Your task to perform on an android device: Search for bose soundsport free on newegg, select the first entry, add it to the cart, then select checkout. Image 0: 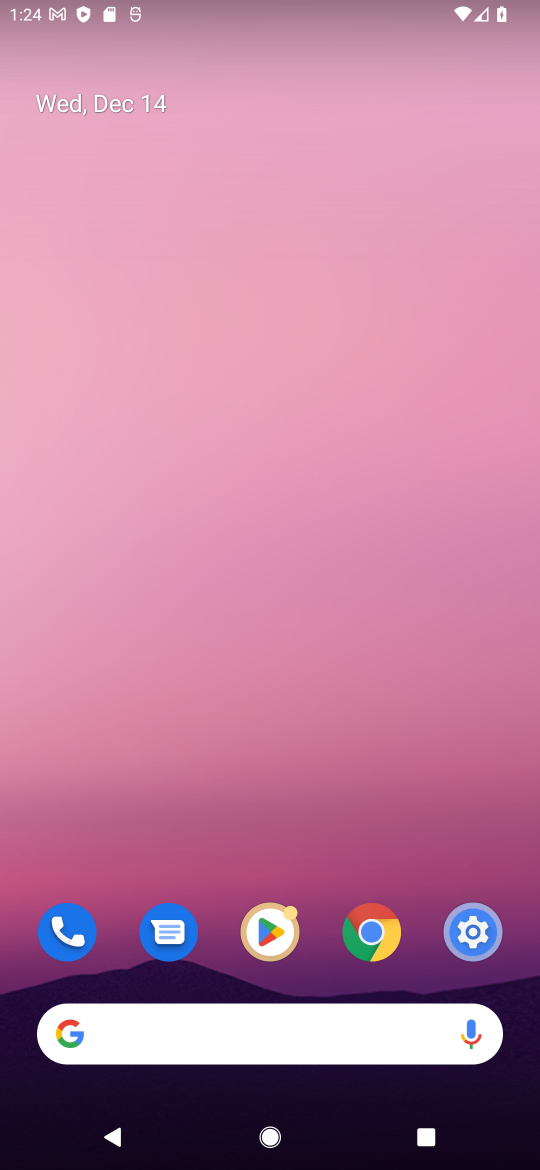
Step 0: click (259, 1036)
Your task to perform on an android device: Search for bose soundsport free on newegg, select the first entry, add it to the cart, then select checkout. Image 1: 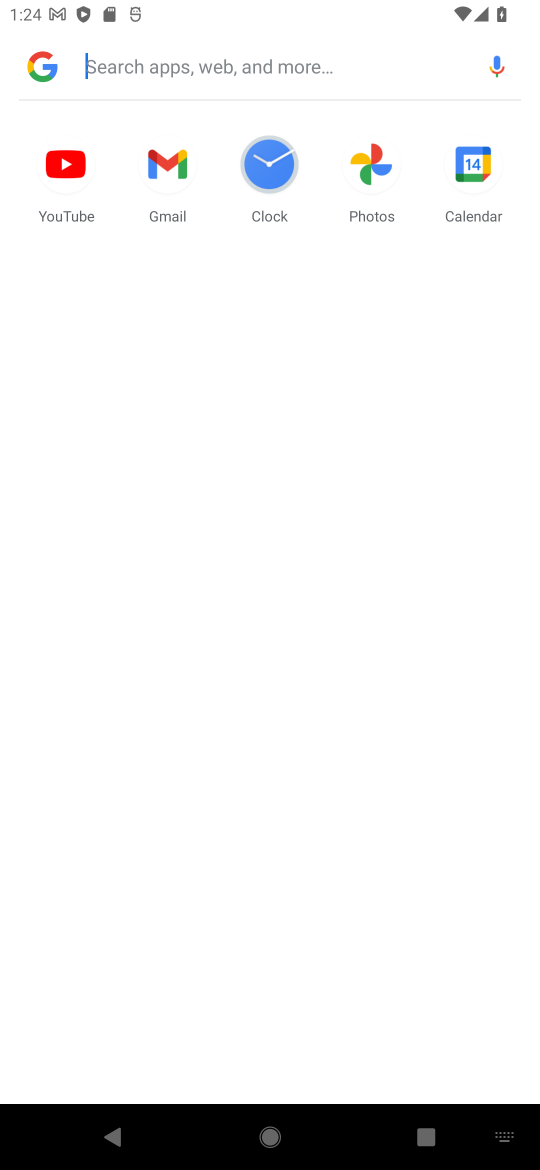
Step 1: type "newegg"
Your task to perform on an android device: Search for bose soundsport free on newegg, select the first entry, add it to the cart, then select checkout. Image 2: 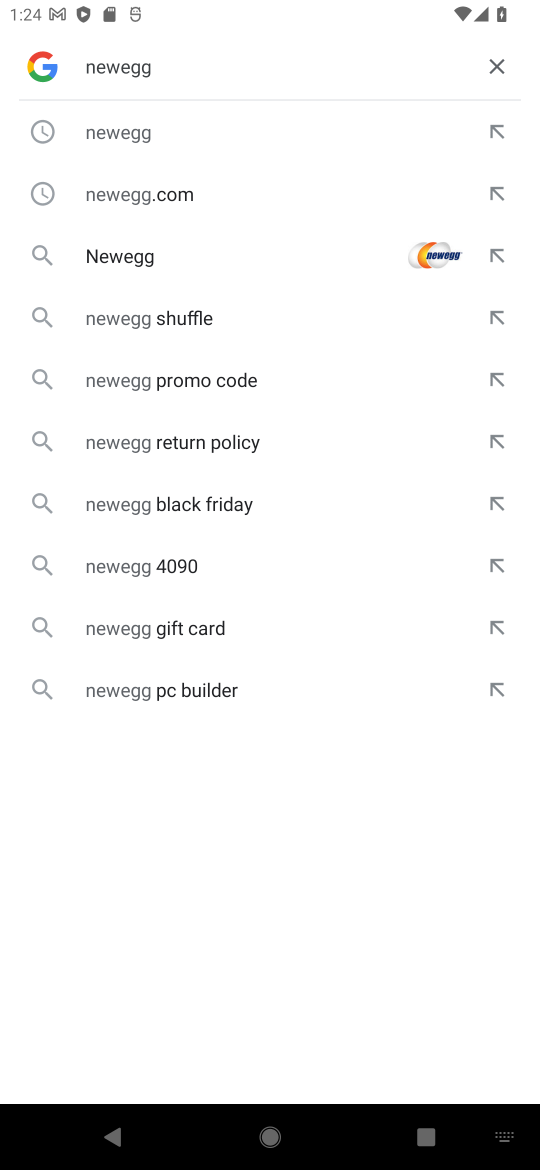
Step 2: click (181, 255)
Your task to perform on an android device: Search for bose soundsport free on newegg, select the first entry, add it to the cart, then select checkout. Image 3: 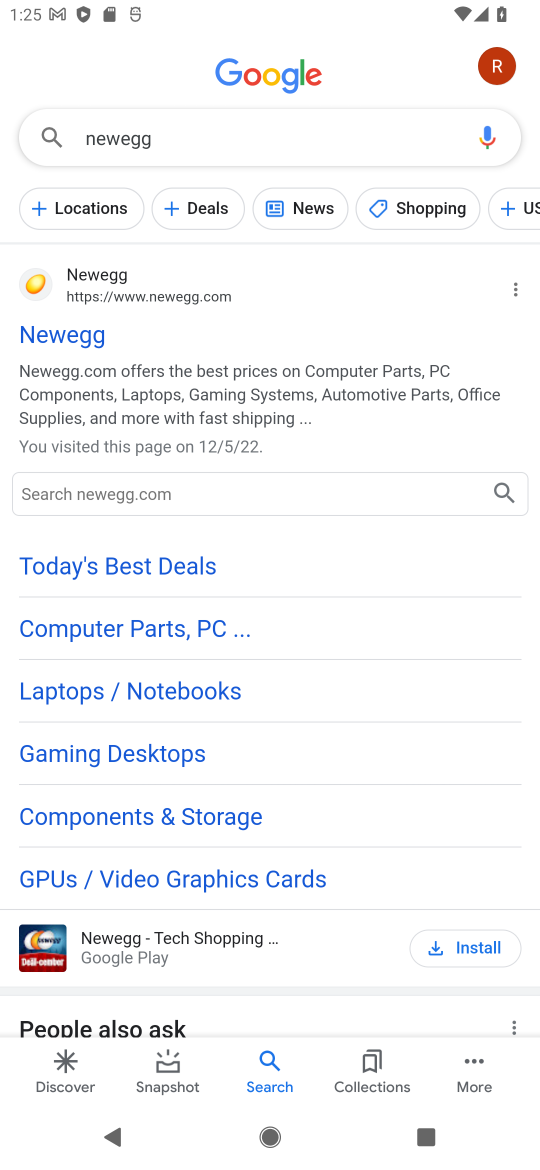
Step 3: click (47, 337)
Your task to perform on an android device: Search for bose soundsport free on newegg, select the first entry, add it to the cart, then select checkout. Image 4: 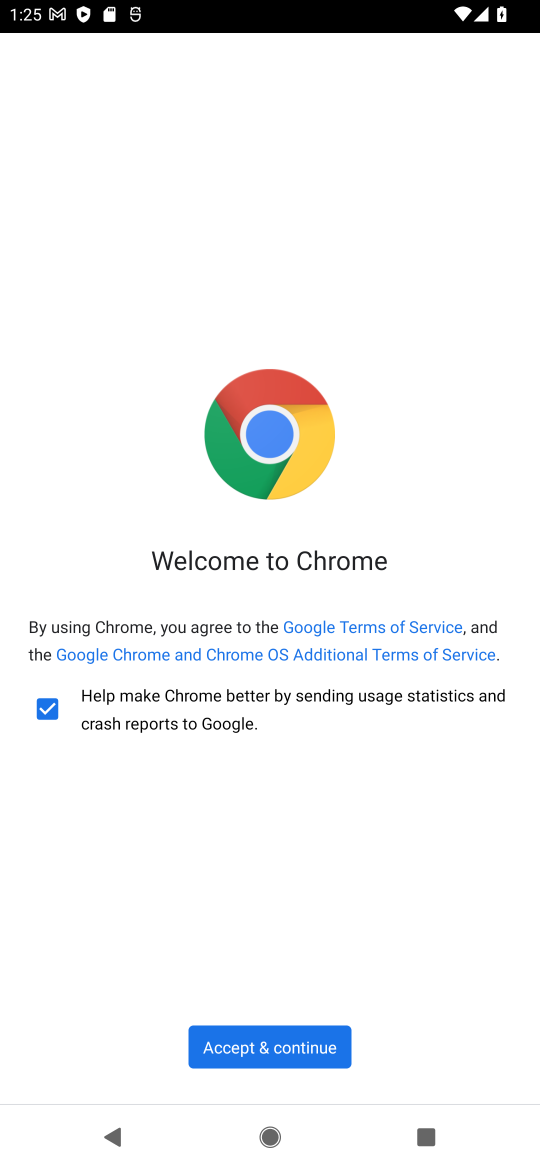
Step 4: click (251, 1040)
Your task to perform on an android device: Search for bose soundsport free on newegg, select the first entry, add it to the cart, then select checkout. Image 5: 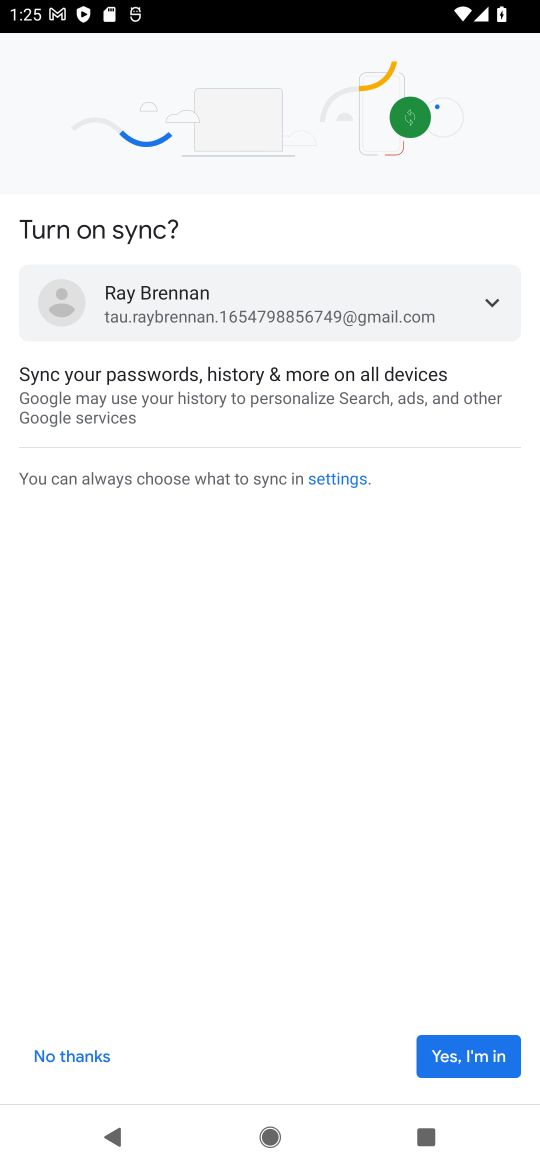
Step 5: click (460, 1057)
Your task to perform on an android device: Search for bose soundsport free on newegg, select the first entry, add it to the cart, then select checkout. Image 6: 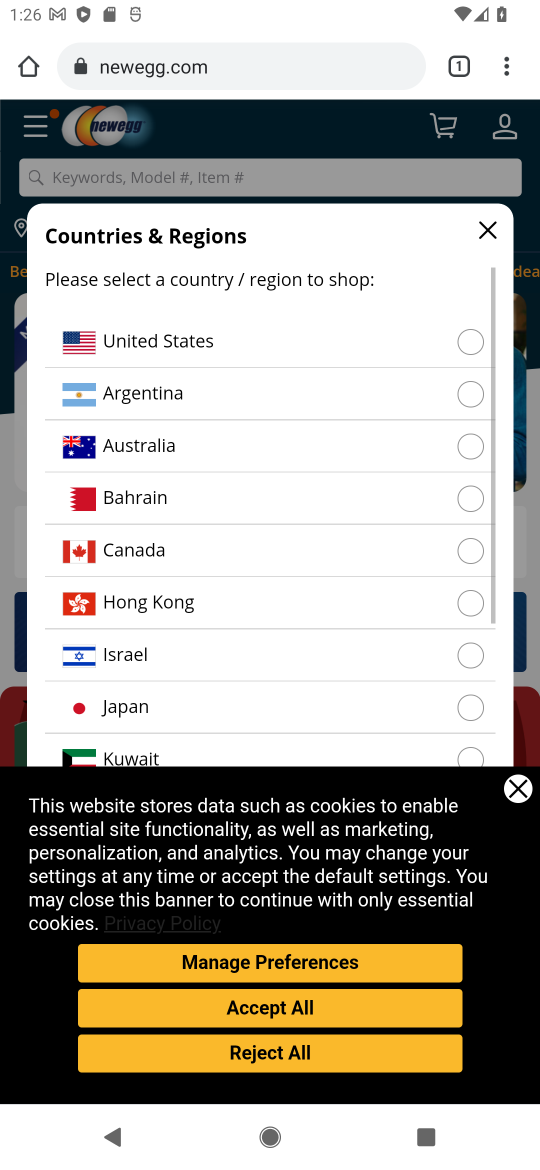
Step 6: click (469, 326)
Your task to perform on an android device: Search for bose soundsport free on newegg, select the first entry, add it to the cart, then select checkout. Image 7: 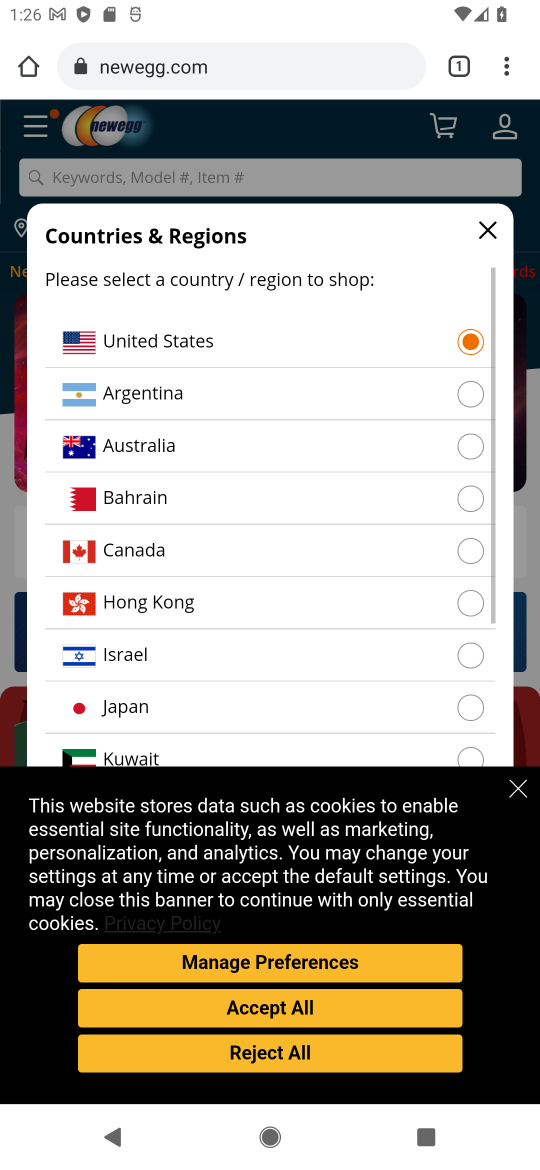
Step 7: click (517, 787)
Your task to perform on an android device: Search for bose soundsport free on newegg, select the first entry, add it to the cart, then select checkout. Image 8: 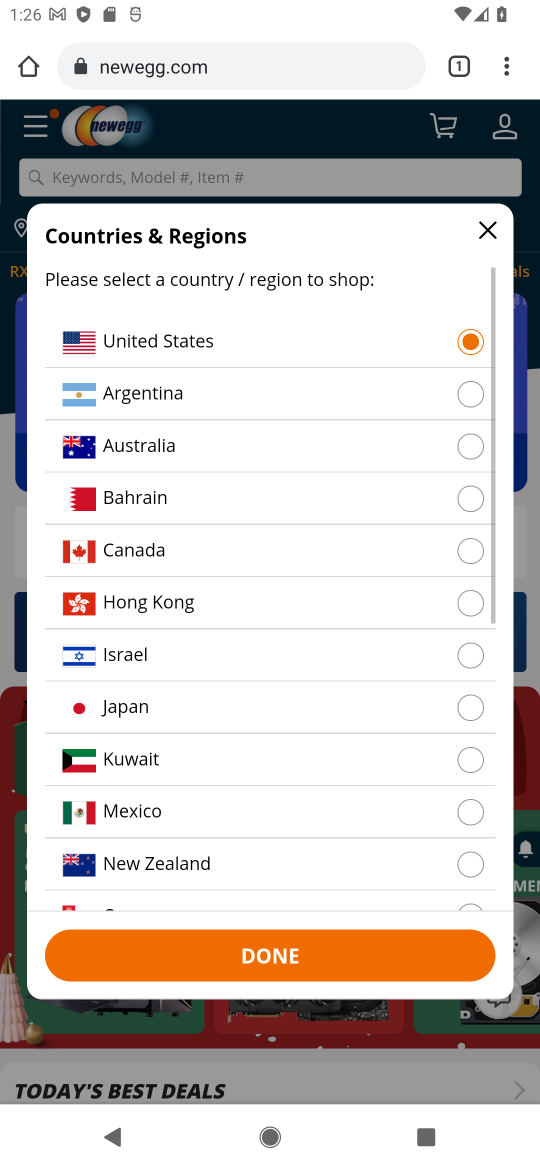
Step 8: click (248, 954)
Your task to perform on an android device: Search for bose soundsport free on newegg, select the first entry, add it to the cart, then select checkout. Image 9: 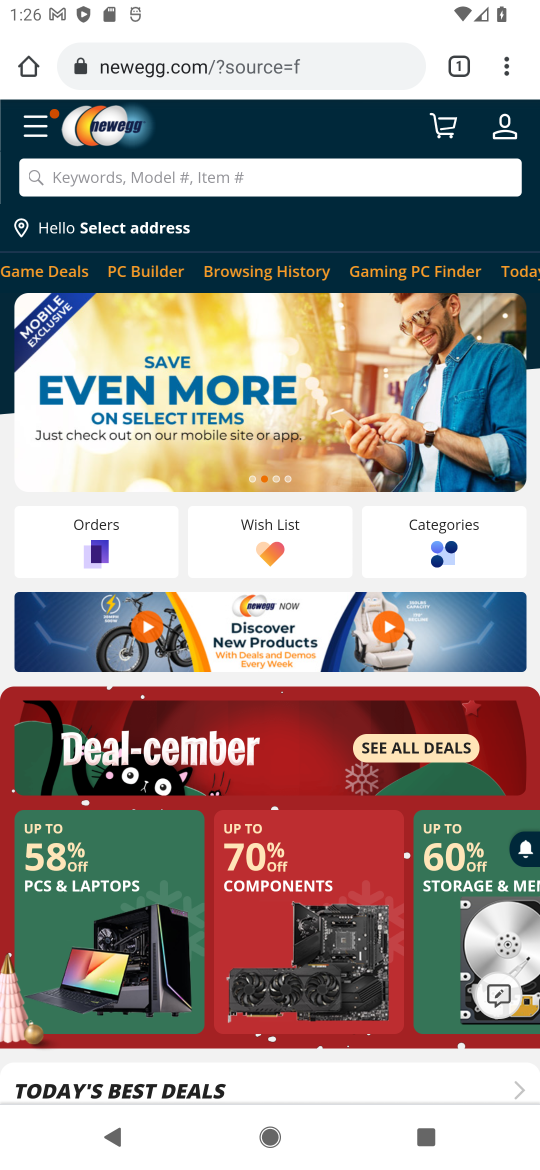
Step 9: click (119, 166)
Your task to perform on an android device: Search for bose soundsport free on newegg, select the first entry, add it to the cart, then select checkout. Image 10: 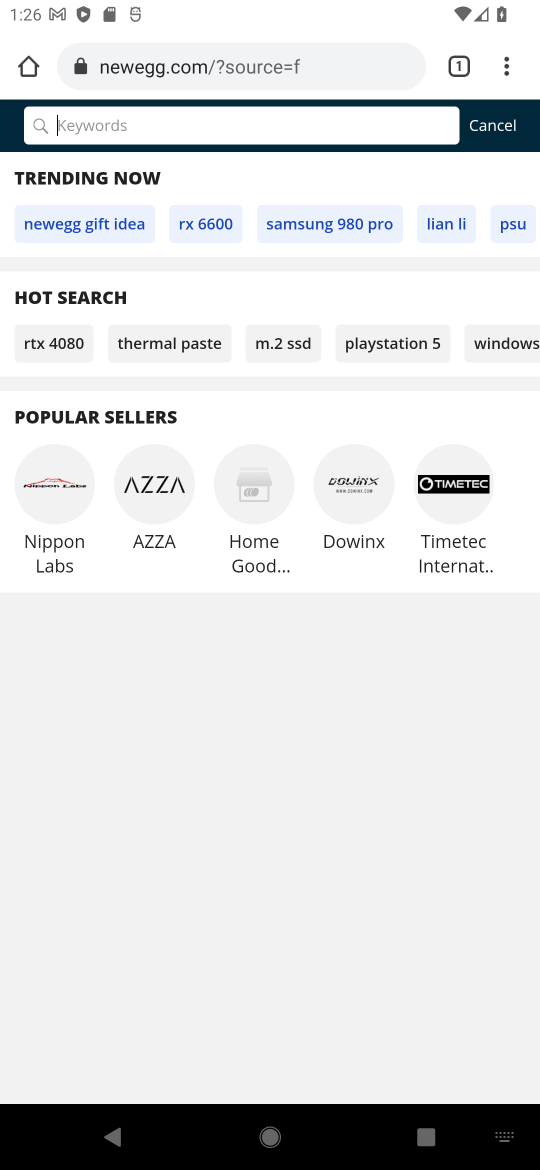
Step 10: type "bose soundsport free "
Your task to perform on an android device: Search for bose soundsport free on newegg, select the first entry, add it to the cart, then select checkout. Image 11: 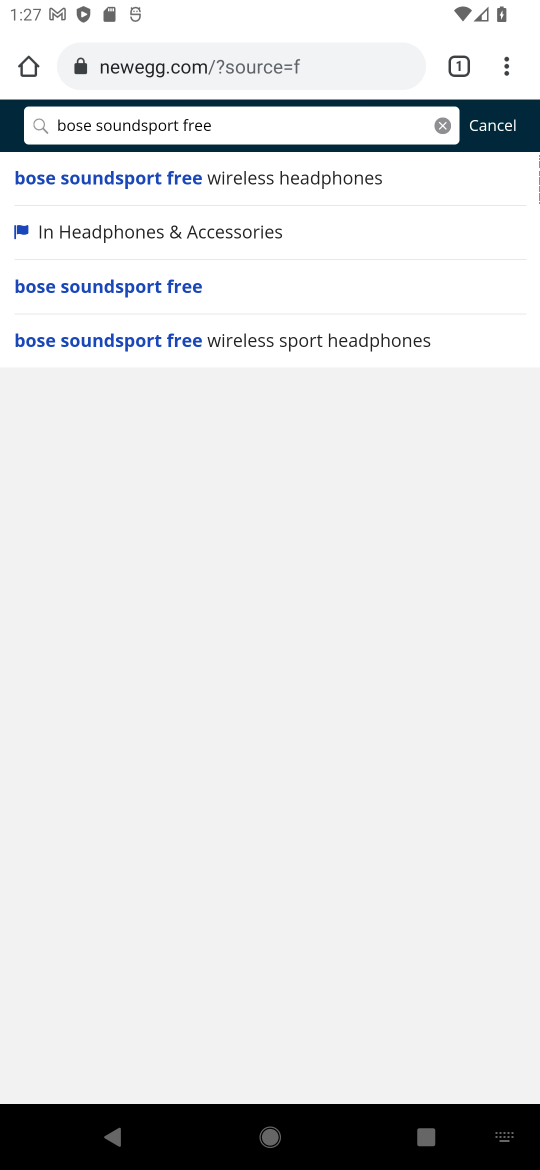
Step 11: click (180, 292)
Your task to perform on an android device: Search for bose soundsport free on newegg, select the first entry, add it to the cart, then select checkout. Image 12: 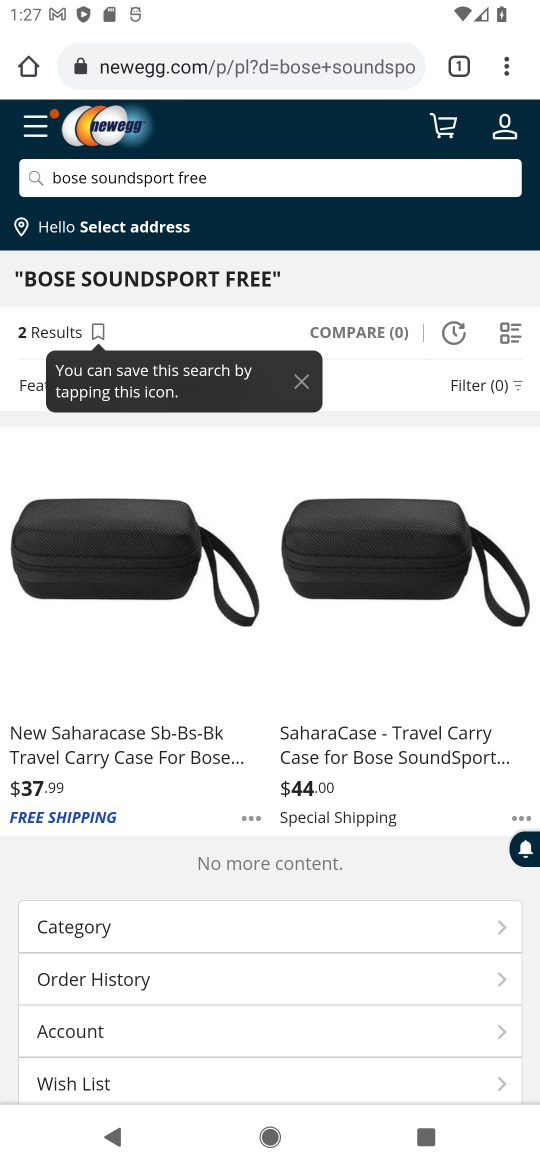
Step 12: click (104, 728)
Your task to perform on an android device: Search for bose soundsport free on newegg, select the first entry, add it to the cart, then select checkout. Image 13: 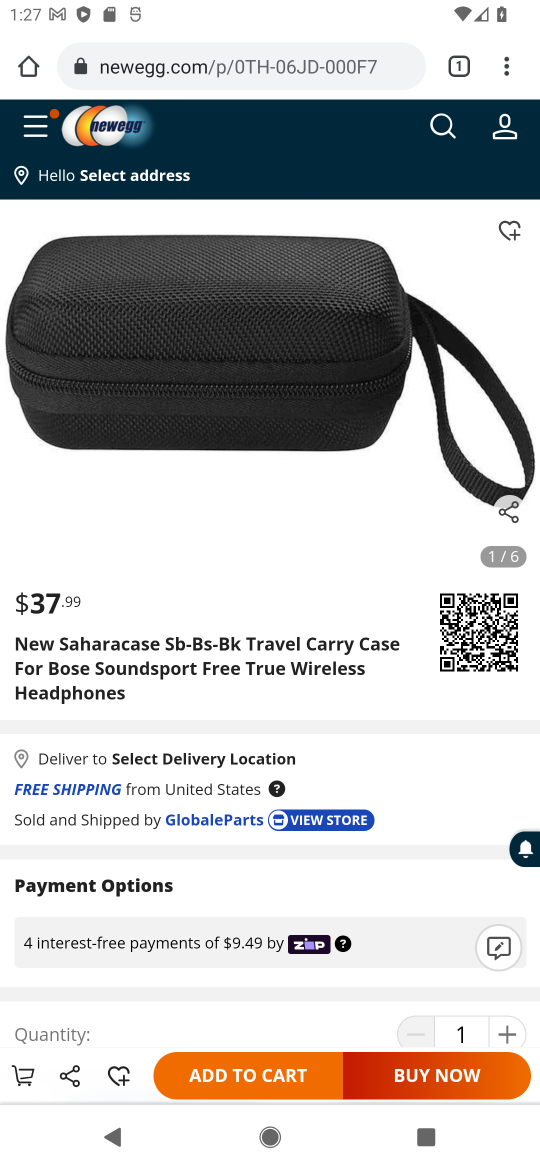
Step 13: click (233, 1082)
Your task to perform on an android device: Search for bose soundsport free on newegg, select the first entry, add it to the cart, then select checkout. Image 14: 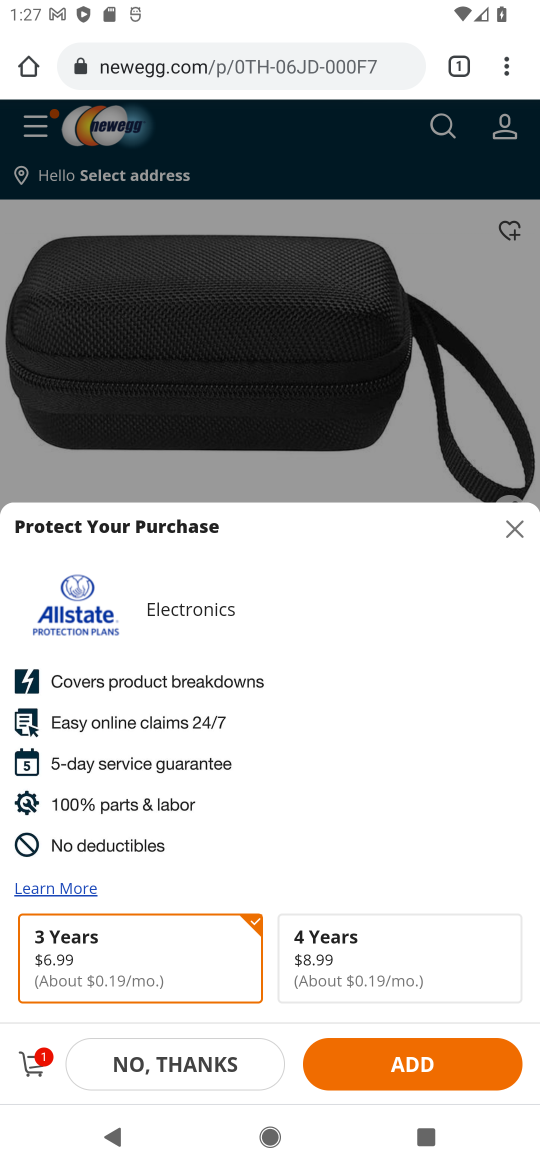
Step 14: click (190, 1070)
Your task to perform on an android device: Search for bose soundsport free on newegg, select the first entry, add it to the cart, then select checkout. Image 15: 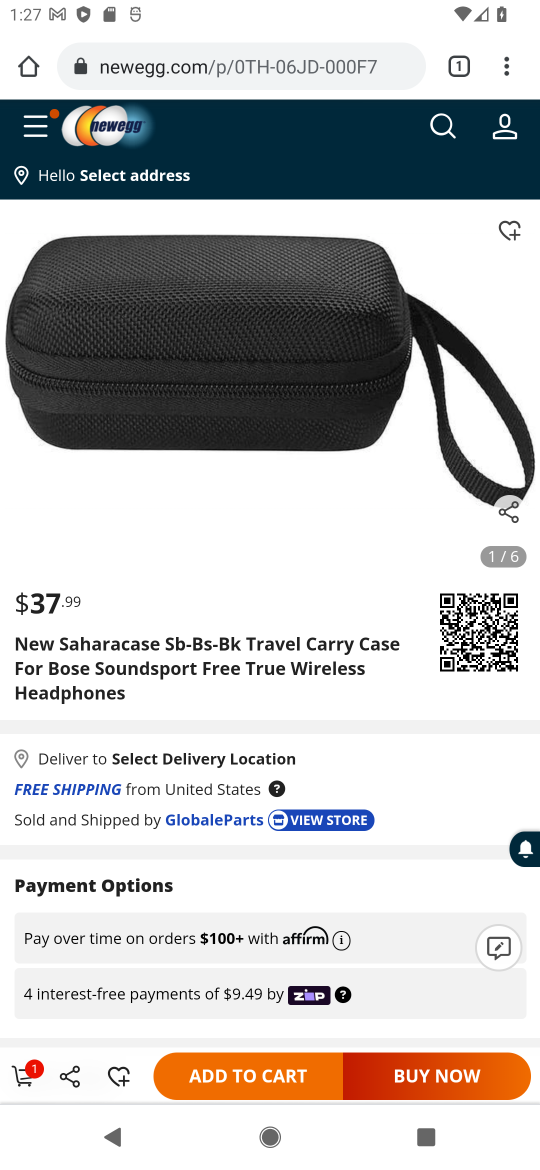
Step 15: click (36, 1070)
Your task to perform on an android device: Search for bose soundsport free on newegg, select the first entry, add it to the cart, then select checkout. Image 16: 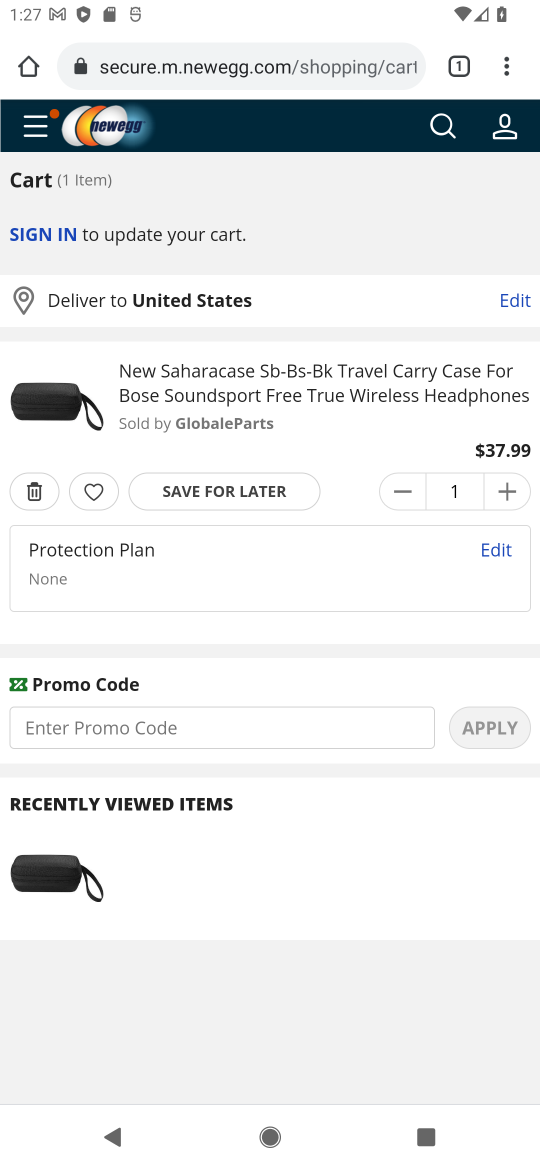
Step 16: click (253, 852)
Your task to perform on an android device: Search for bose soundsport free on newegg, select the first entry, add it to the cart, then select checkout. Image 17: 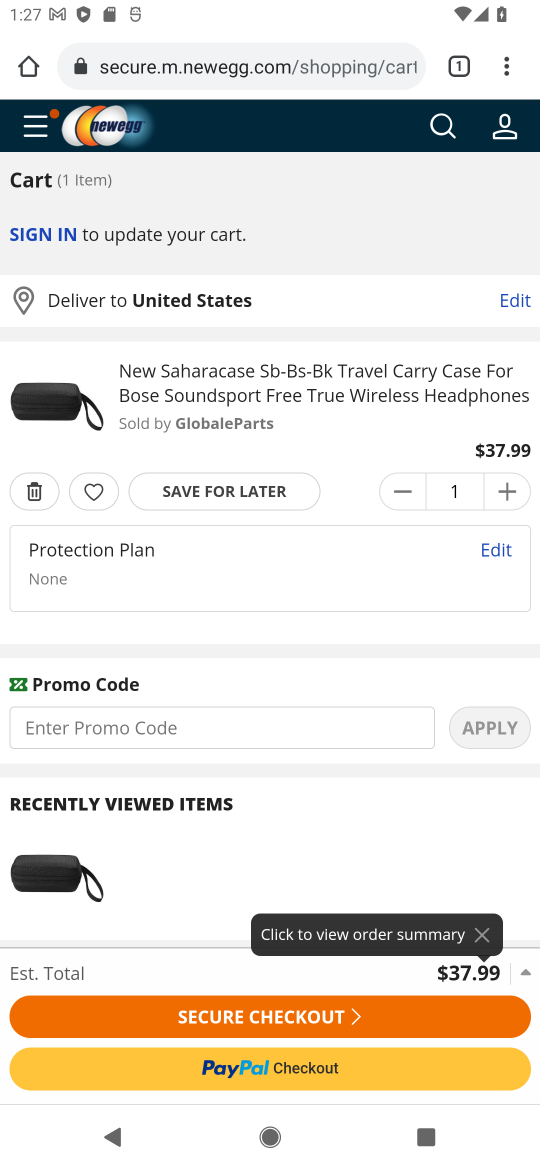
Step 17: click (264, 1021)
Your task to perform on an android device: Search for bose soundsport free on newegg, select the first entry, add it to the cart, then select checkout. Image 18: 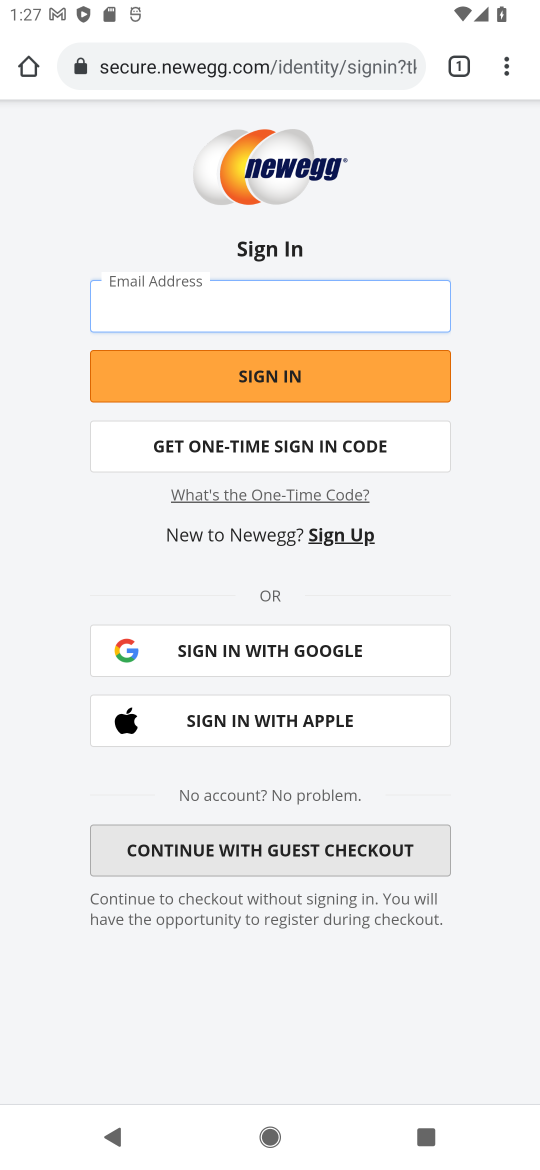
Step 18: task complete